Your task to perform on an android device: Open the web browser Image 0: 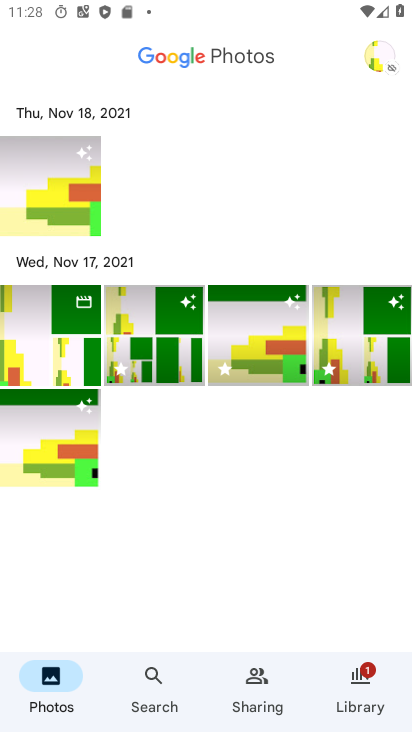
Step 0: press home button
Your task to perform on an android device: Open the web browser Image 1: 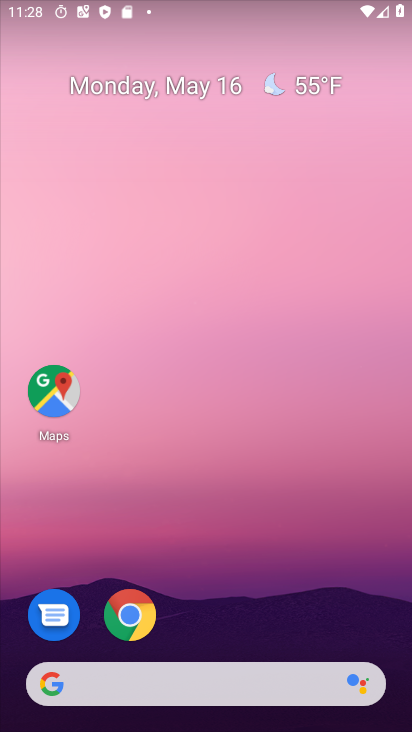
Step 1: click (141, 632)
Your task to perform on an android device: Open the web browser Image 2: 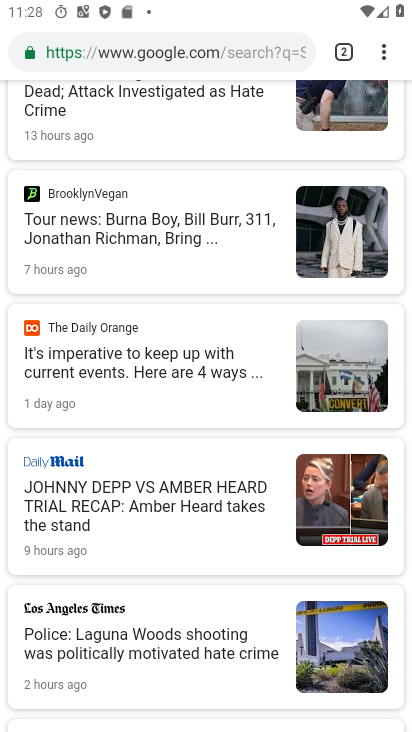
Step 2: click (196, 52)
Your task to perform on an android device: Open the web browser Image 3: 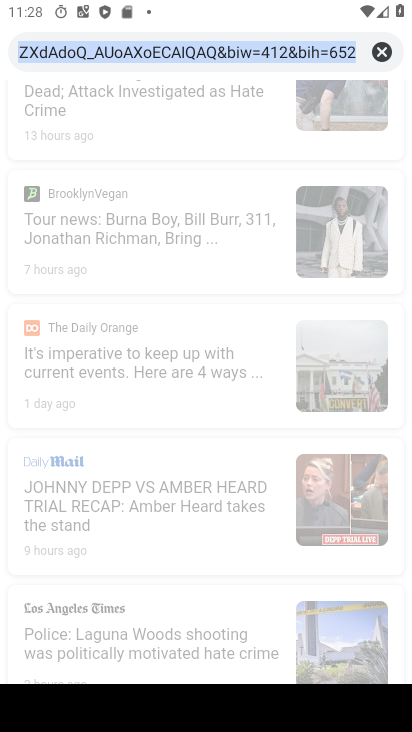
Step 3: click (378, 42)
Your task to perform on an android device: Open the web browser Image 4: 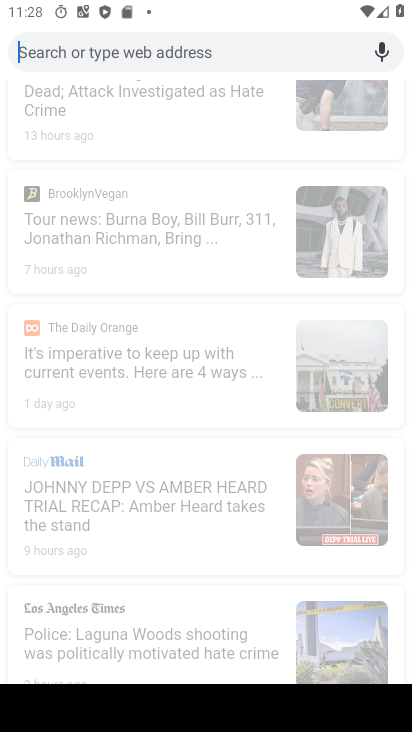
Step 4: click (160, 45)
Your task to perform on an android device: Open the web browser Image 5: 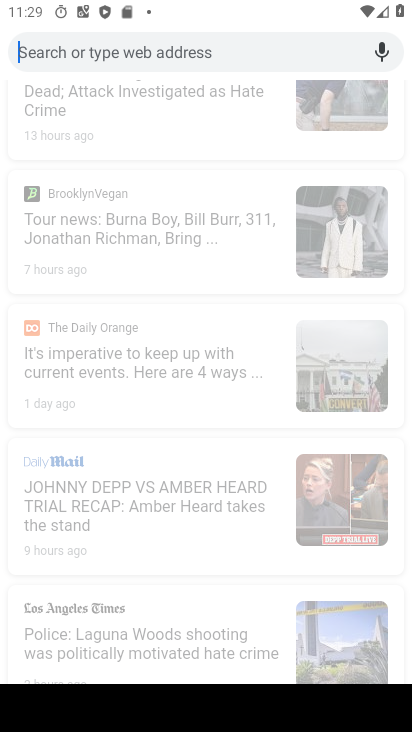
Step 5: click (160, 45)
Your task to perform on an android device: Open the web browser Image 6: 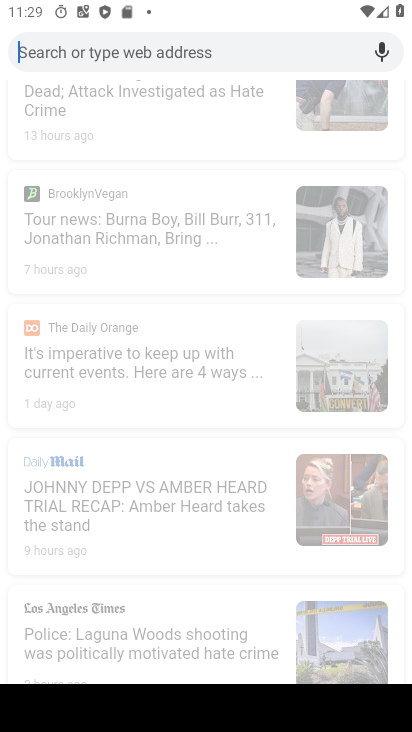
Step 6: type "web browser"
Your task to perform on an android device: Open the web browser Image 7: 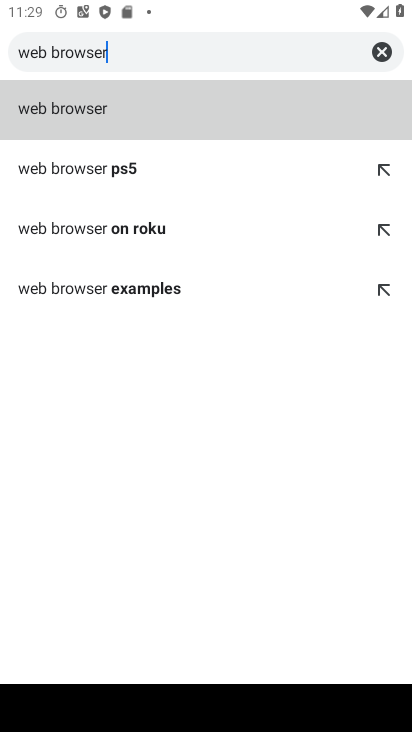
Step 7: click (72, 115)
Your task to perform on an android device: Open the web browser Image 8: 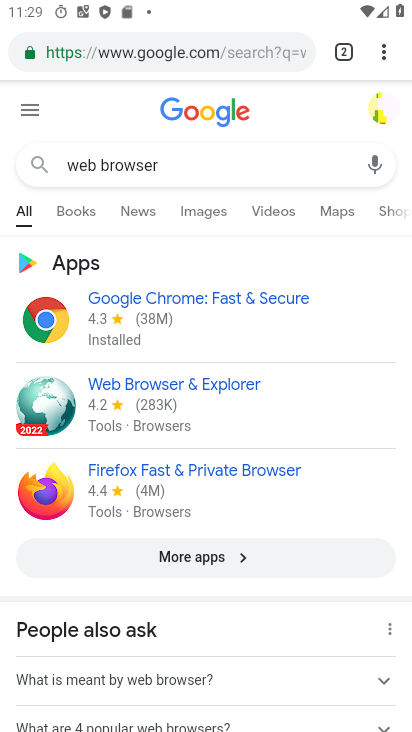
Step 8: task complete